Your task to perform on an android device: toggle location history Image 0: 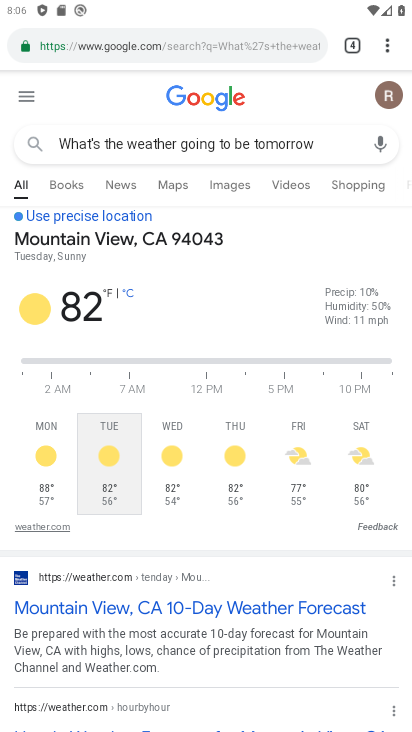
Step 0: click (390, 38)
Your task to perform on an android device: toggle location history Image 1: 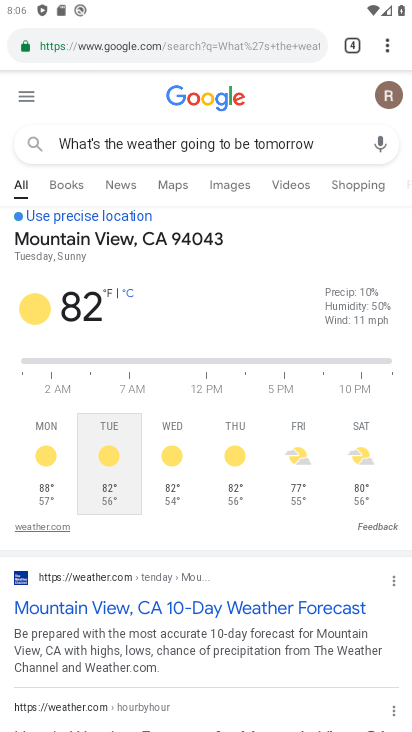
Step 1: press home button
Your task to perform on an android device: toggle location history Image 2: 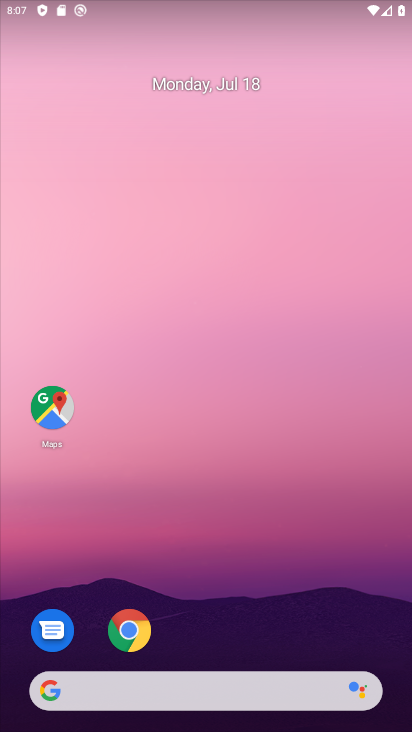
Step 2: drag from (240, 662) to (240, 122)
Your task to perform on an android device: toggle location history Image 3: 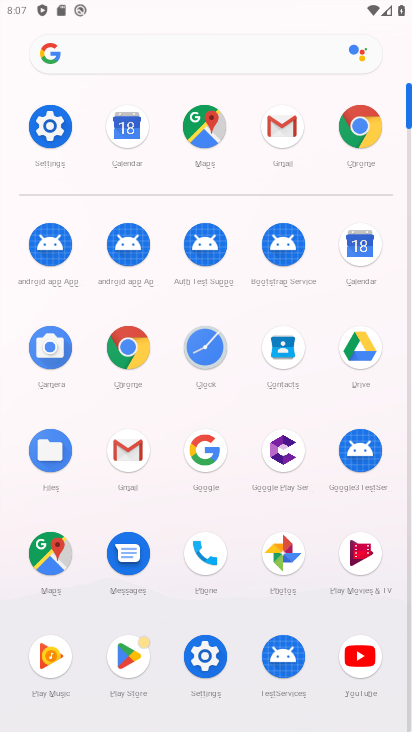
Step 3: click (49, 120)
Your task to perform on an android device: toggle location history Image 4: 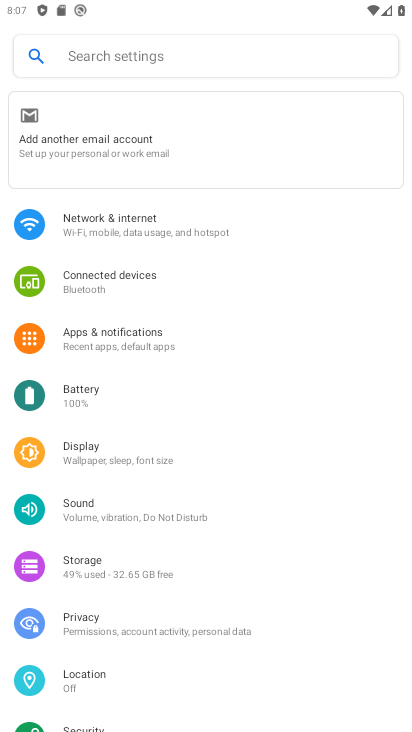
Step 4: click (115, 665)
Your task to perform on an android device: toggle location history Image 5: 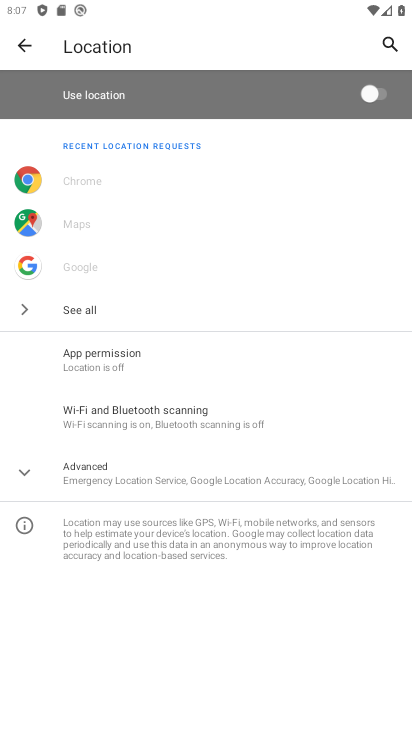
Step 5: click (185, 480)
Your task to perform on an android device: toggle location history Image 6: 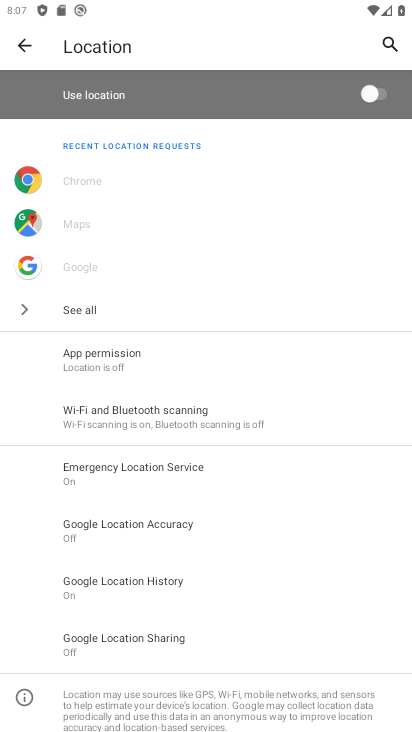
Step 6: click (153, 586)
Your task to perform on an android device: toggle location history Image 7: 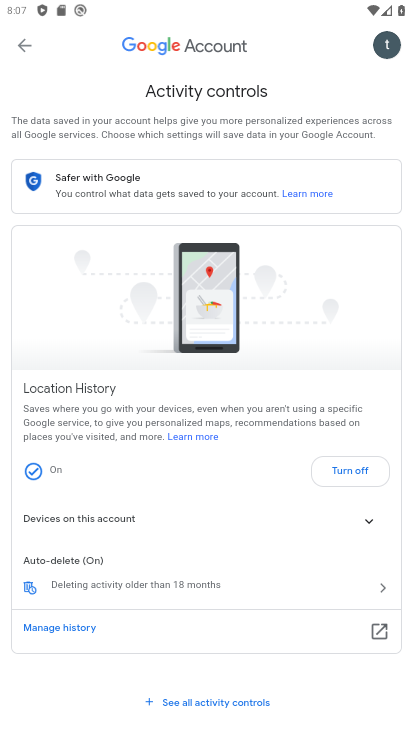
Step 7: click (348, 469)
Your task to perform on an android device: toggle location history Image 8: 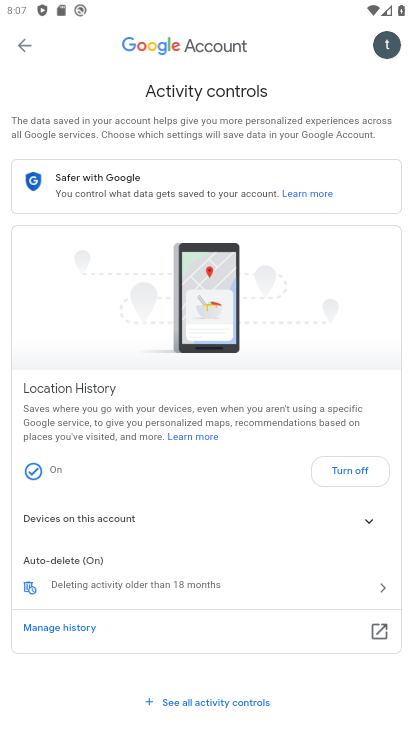
Step 8: click (348, 469)
Your task to perform on an android device: toggle location history Image 9: 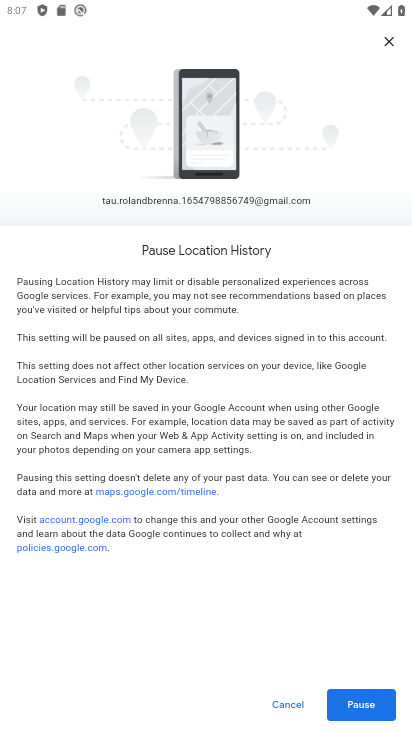
Step 9: click (336, 705)
Your task to perform on an android device: toggle location history Image 10: 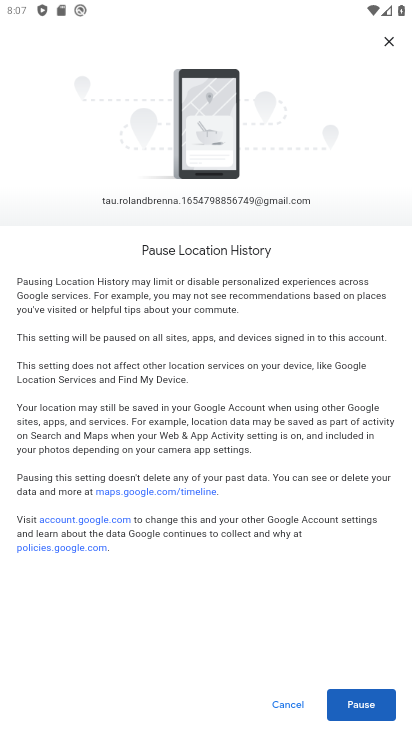
Step 10: task complete